Your task to perform on an android device: See recent photos Image 0: 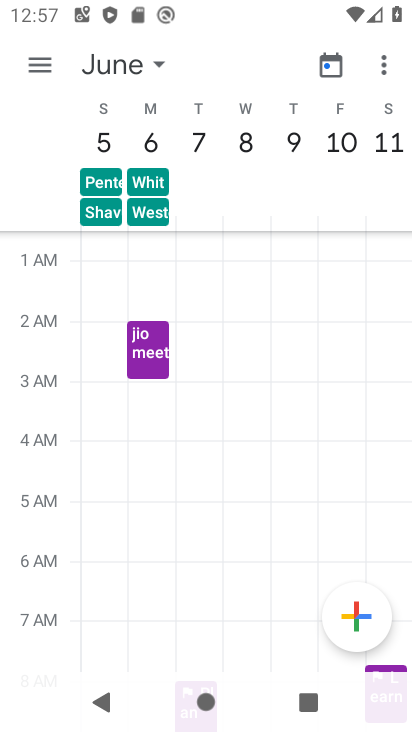
Step 0: press home button
Your task to perform on an android device: See recent photos Image 1: 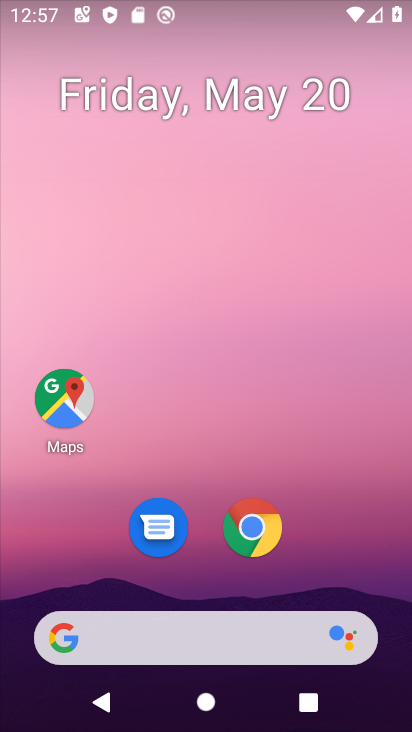
Step 1: drag from (200, 463) to (234, 44)
Your task to perform on an android device: See recent photos Image 2: 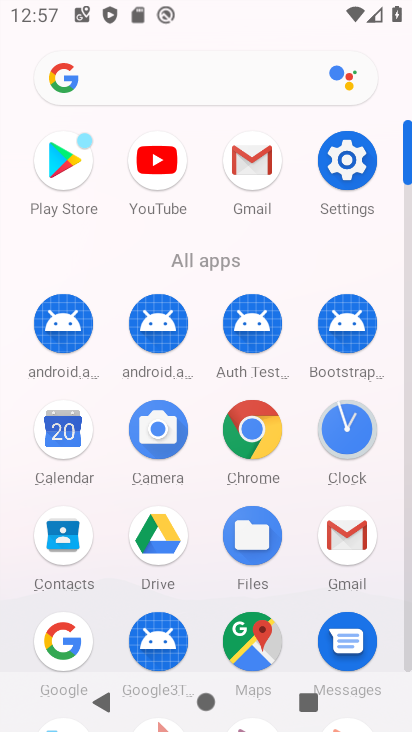
Step 2: drag from (202, 479) to (235, 154)
Your task to perform on an android device: See recent photos Image 3: 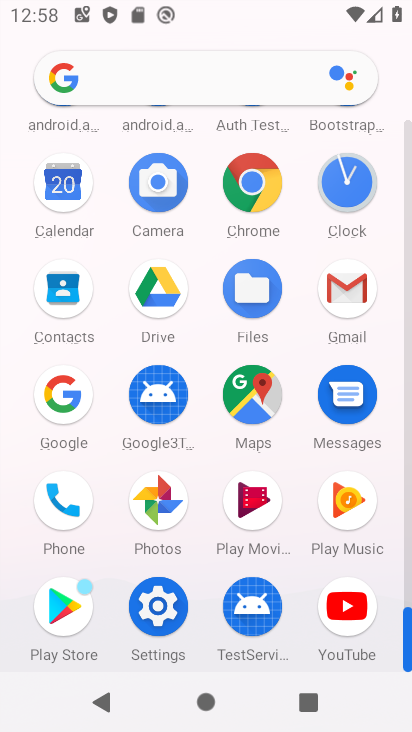
Step 3: click (177, 498)
Your task to perform on an android device: See recent photos Image 4: 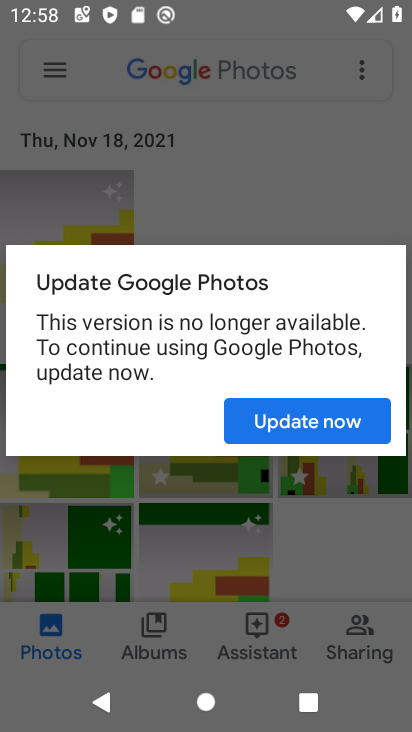
Step 4: click (297, 421)
Your task to perform on an android device: See recent photos Image 5: 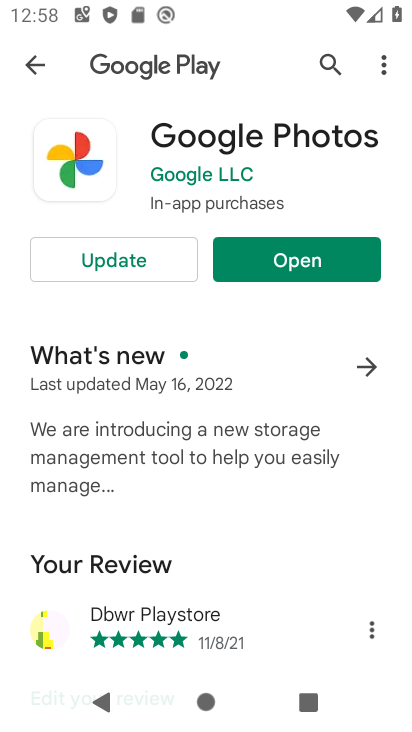
Step 5: click (323, 263)
Your task to perform on an android device: See recent photos Image 6: 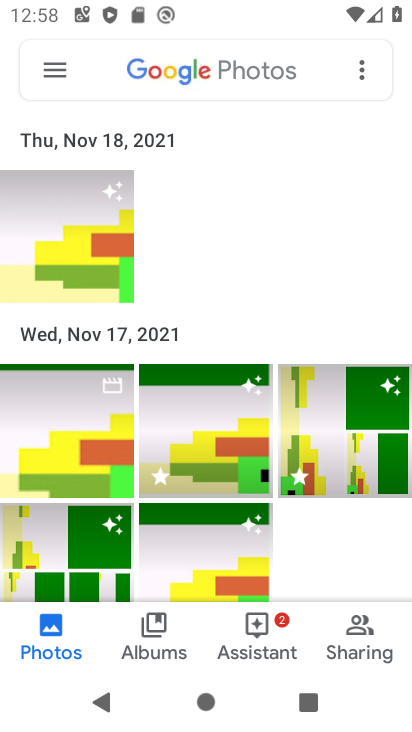
Step 6: task complete